Your task to perform on an android device: turn off data saver in the chrome app Image 0: 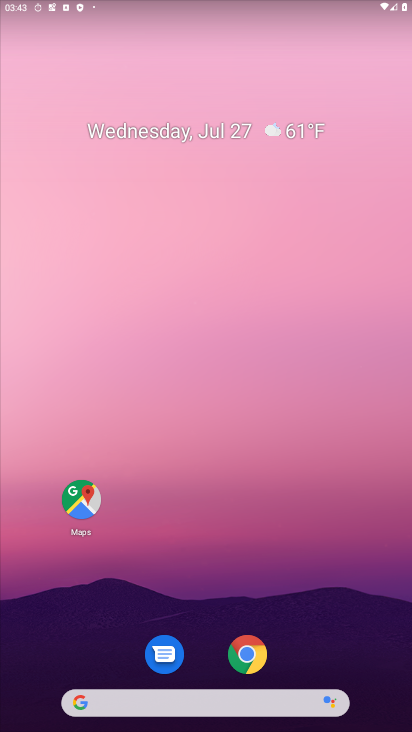
Step 0: drag from (280, 640) to (358, 15)
Your task to perform on an android device: turn off data saver in the chrome app Image 1: 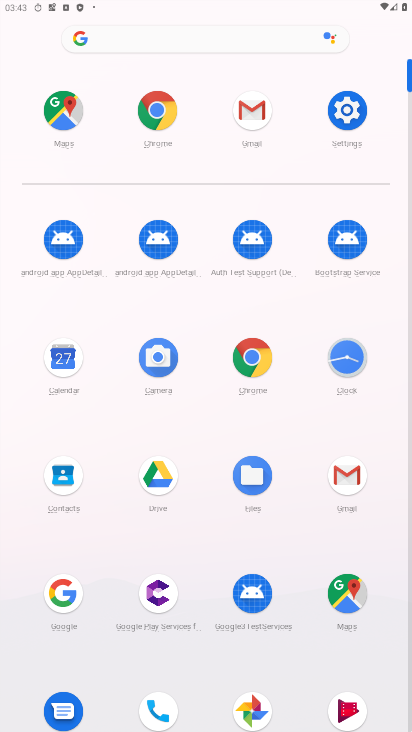
Step 1: click (249, 350)
Your task to perform on an android device: turn off data saver in the chrome app Image 2: 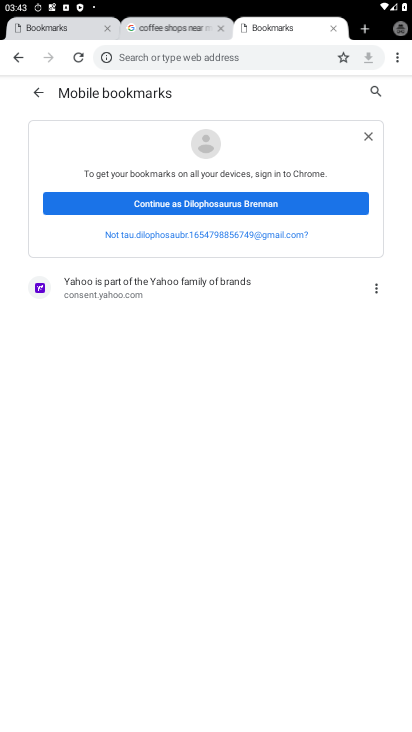
Step 2: click (386, 53)
Your task to perform on an android device: turn off data saver in the chrome app Image 3: 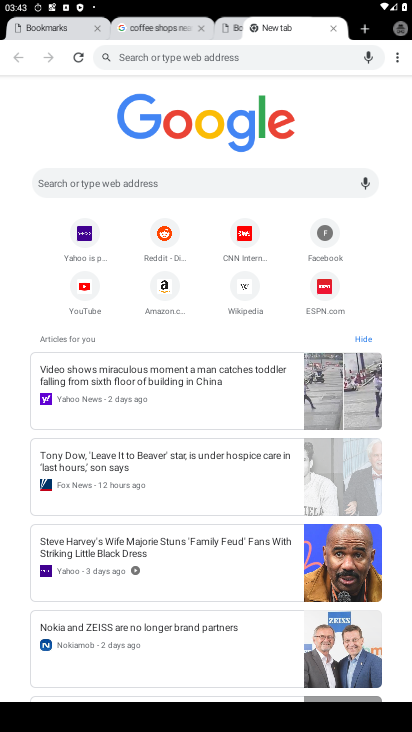
Step 3: drag from (394, 57) to (296, 267)
Your task to perform on an android device: turn off data saver in the chrome app Image 4: 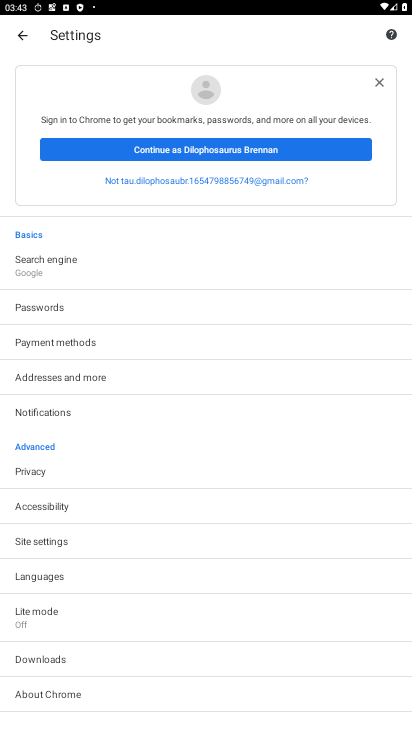
Step 4: click (36, 606)
Your task to perform on an android device: turn off data saver in the chrome app Image 5: 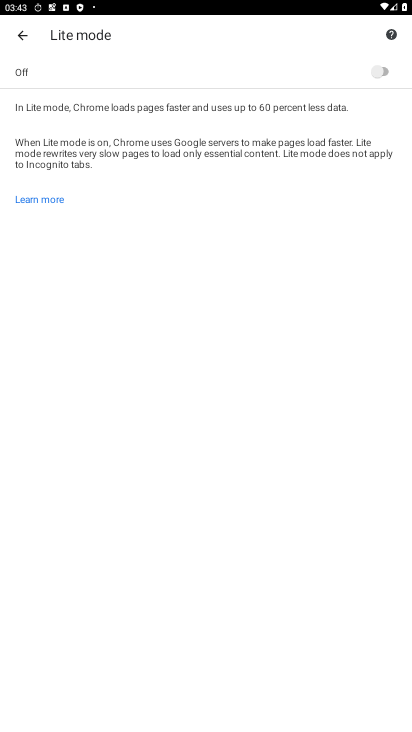
Step 5: task complete